Your task to perform on an android device: refresh tabs in the chrome app Image 0: 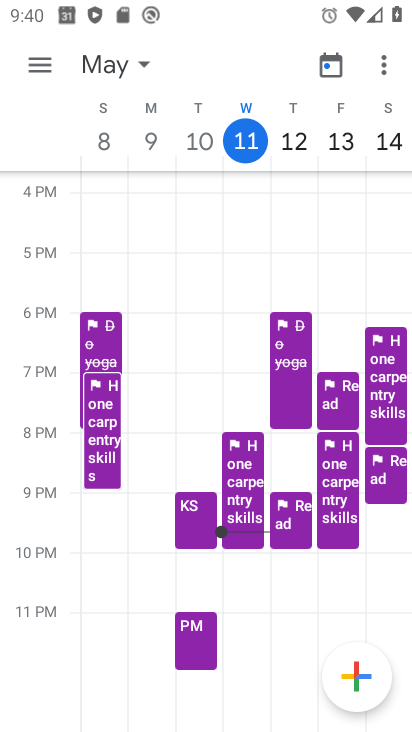
Step 0: press home button
Your task to perform on an android device: refresh tabs in the chrome app Image 1: 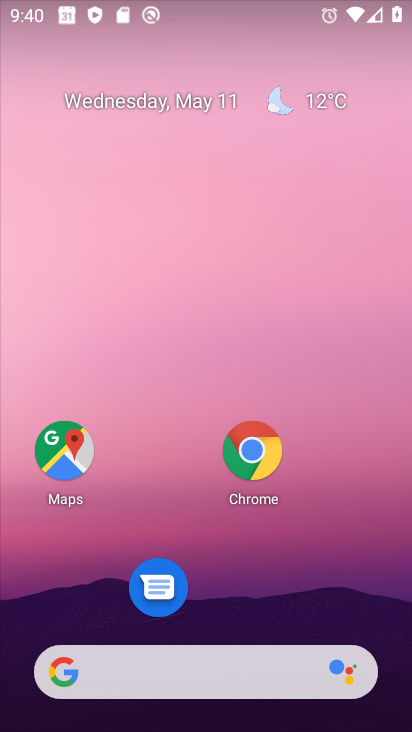
Step 1: click (242, 463)
Your task to perform on an android device: refresh tabs in the chrome app Image 2: 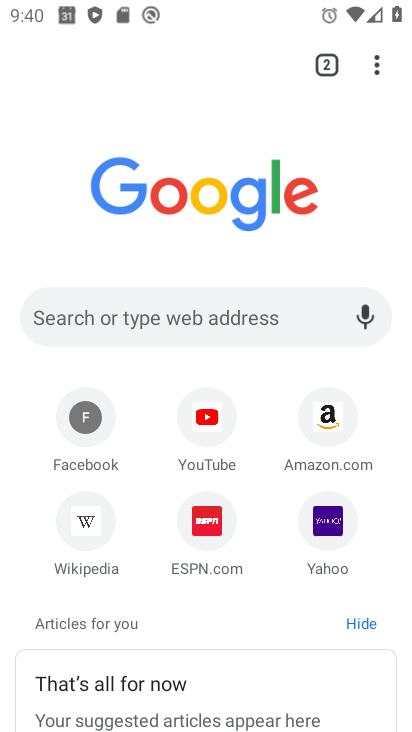
Step 2: click (383, 67)
Your task to perform on an android device: refresh tabs in the chrome app Image 3: 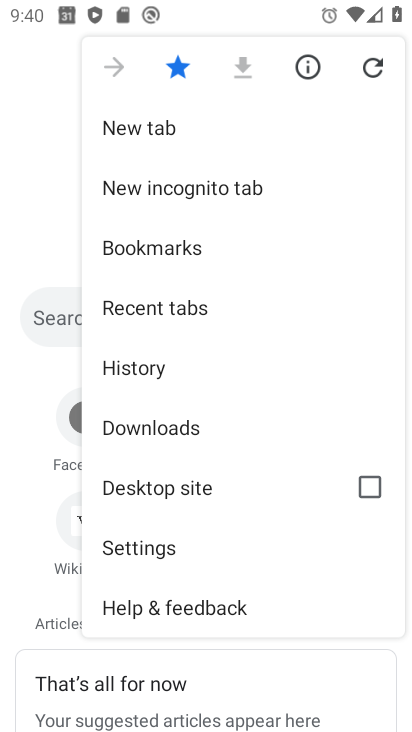
Step 3: click (379, 71)
Your task to perform on an android device: refresh tabs in the chrome app Image 4: 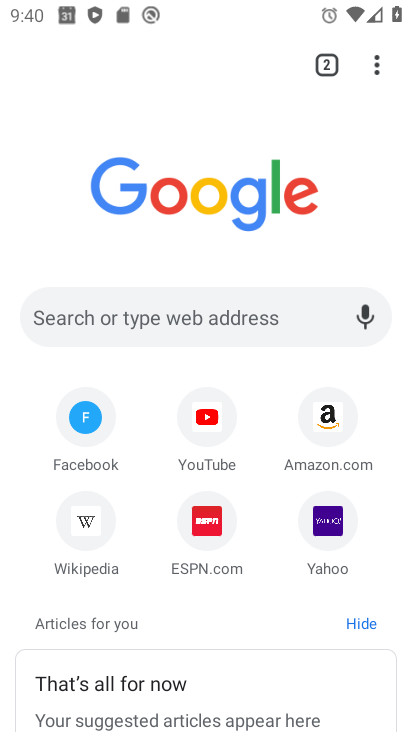
Step 4: task complete